Your task to perform on an android device: Open CNN.com Image 0: 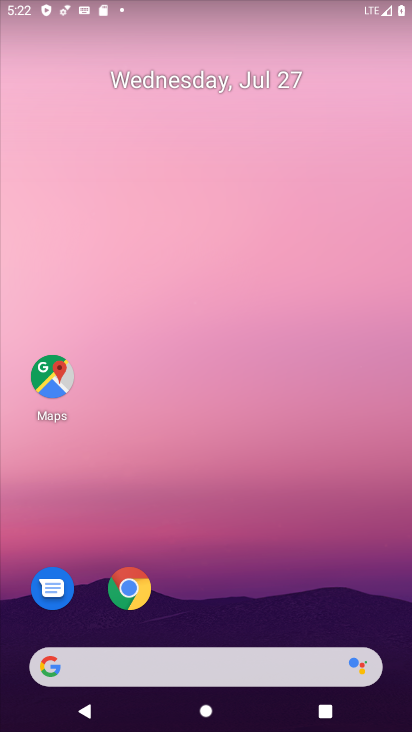
Step 0: drag from (226, 598) to (269, 13)
Your task to perform on an android device: Open CNN.com Image 1: 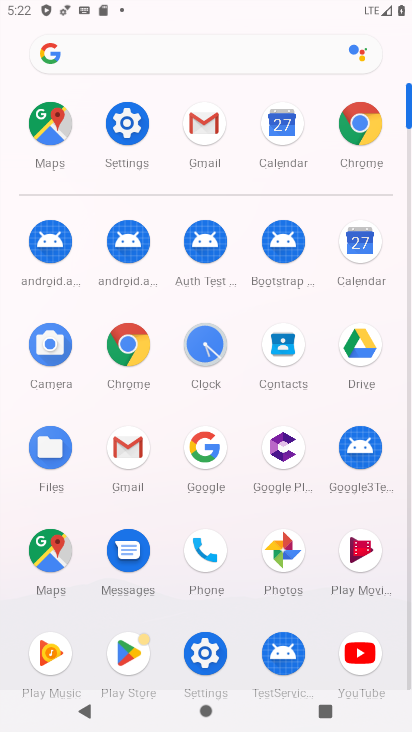
Step 1: click (119, 344)
Your task to perform on an android device: Open CNN.com Image 2: 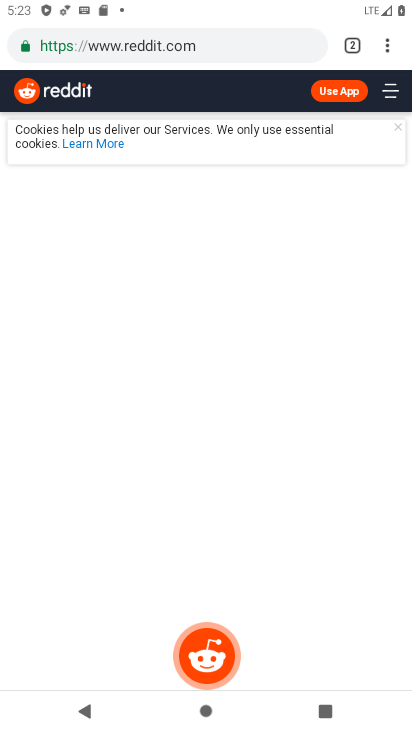
Step 2: click (181, 33)
Your task to perform on an android device: Open CNN.com Image 3: 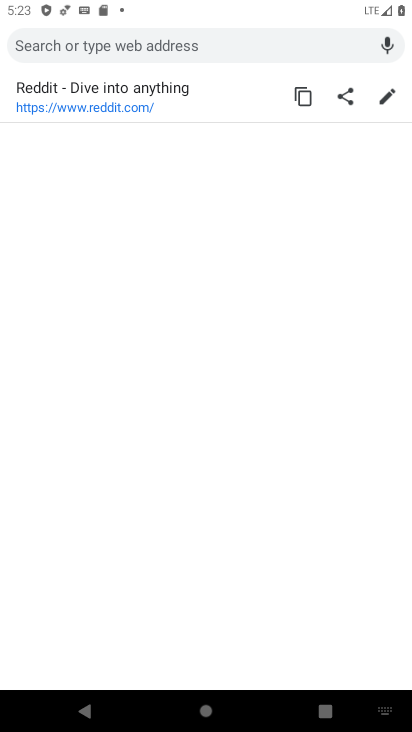
Step 3: type "cnn.com"
Your task to perform on an android device: Open CNN.com Image 4: 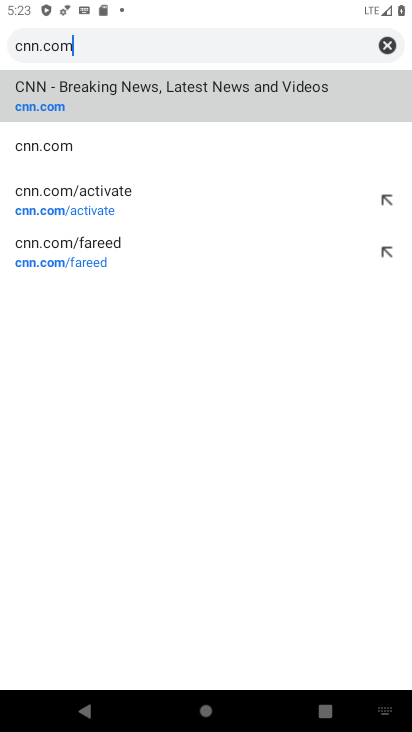
Step 4: click (222, 97)
Your task to perform on an android device: Open CNN.com Image 5: 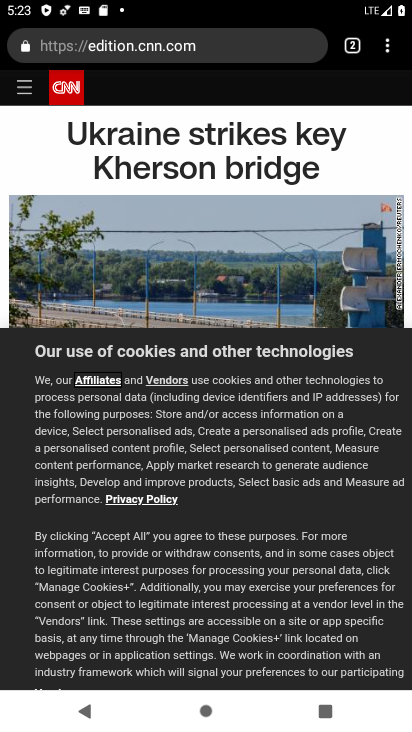
Step 5: task complete